Your task to perform on an android device: Show me popular videos on Youtube Image 0: 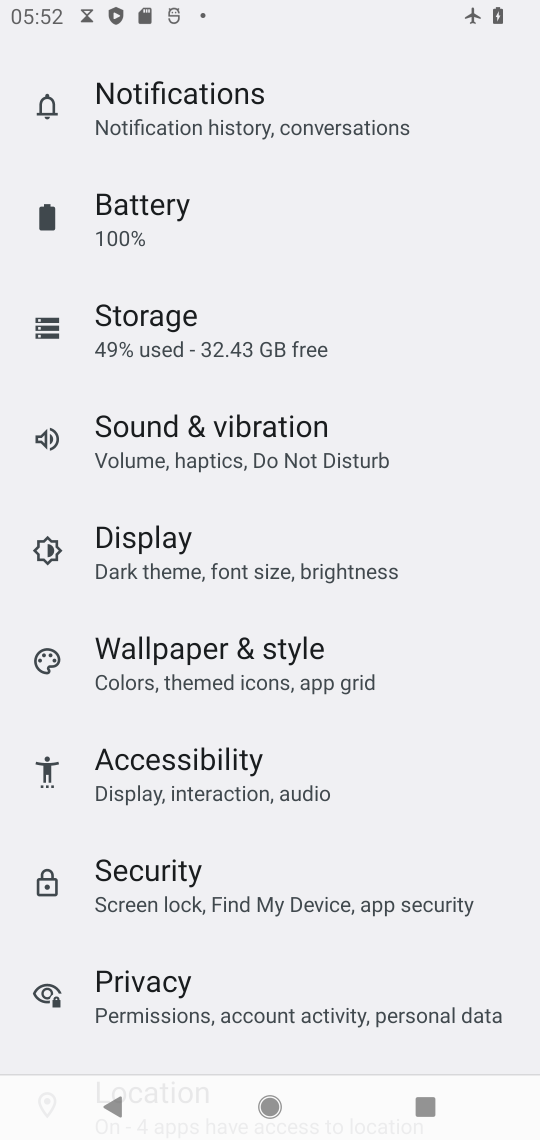
Step 0: press home button
Your task to perform on an android device: Show me popular videos on Youtube Image 1: 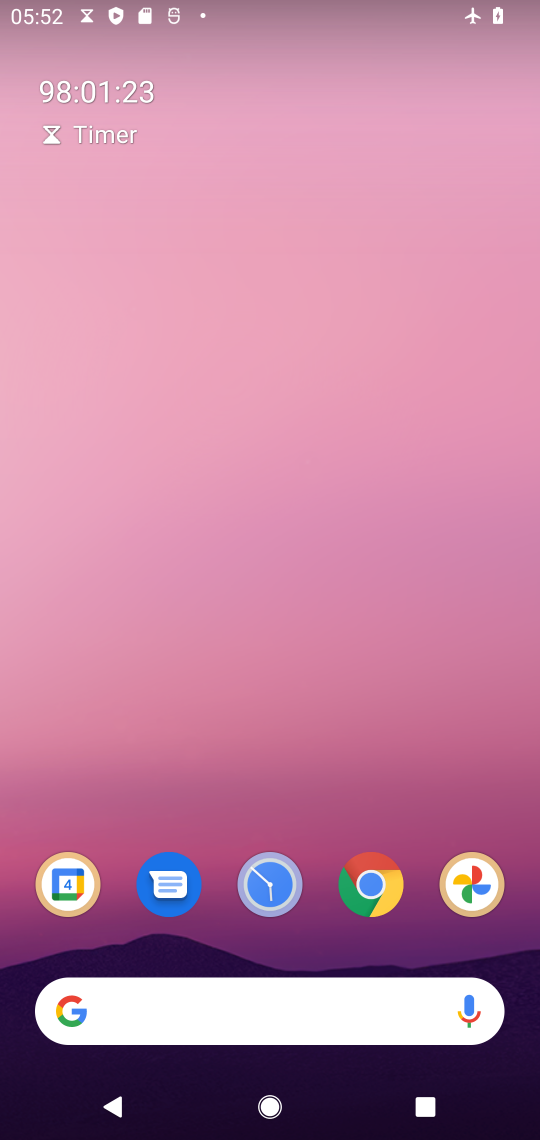
Step 1: drag from (331, 995) to (338, 132)
Your task to perform on an android device: Show me popular videos on Youtube Image 2: 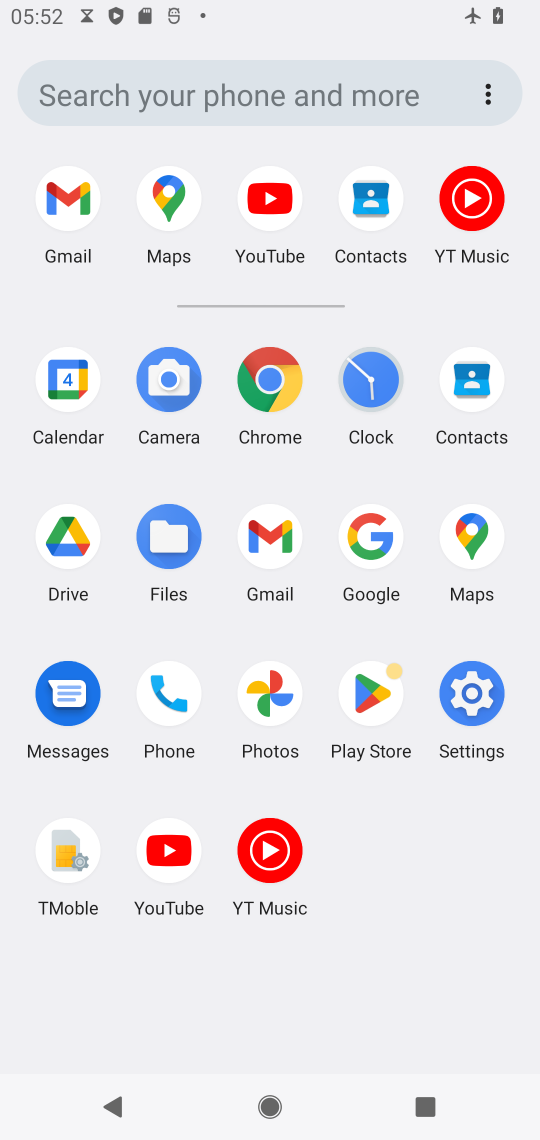
Step 2: click (168, 823)
Your task to perform on an android device: Show me popular videos on Youtube Image 3: 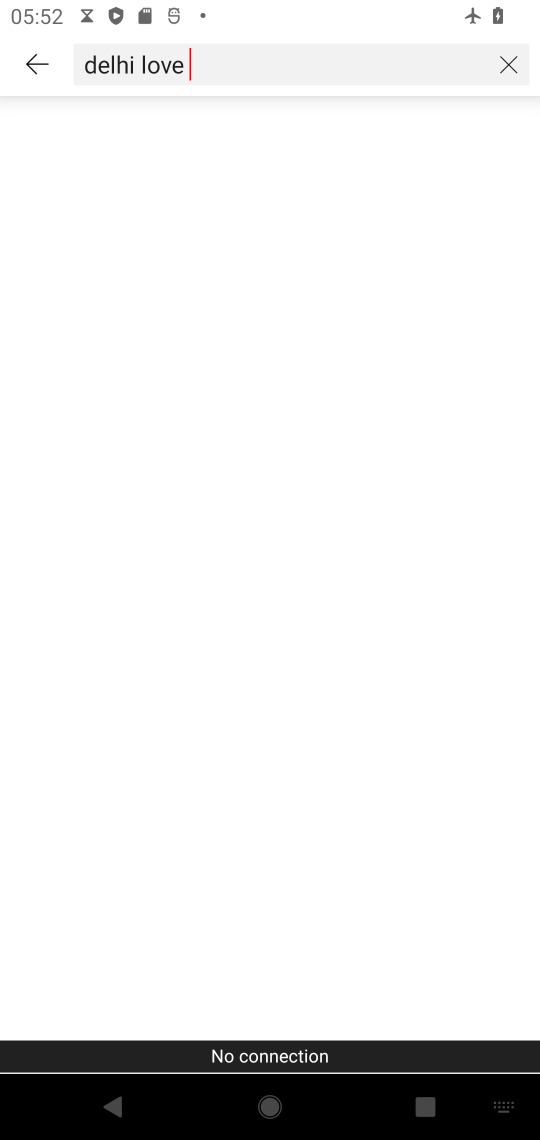
Step 3: click (460, 56)
Your task to perform on an android device: Show me popular videos on Youtube Image 4: 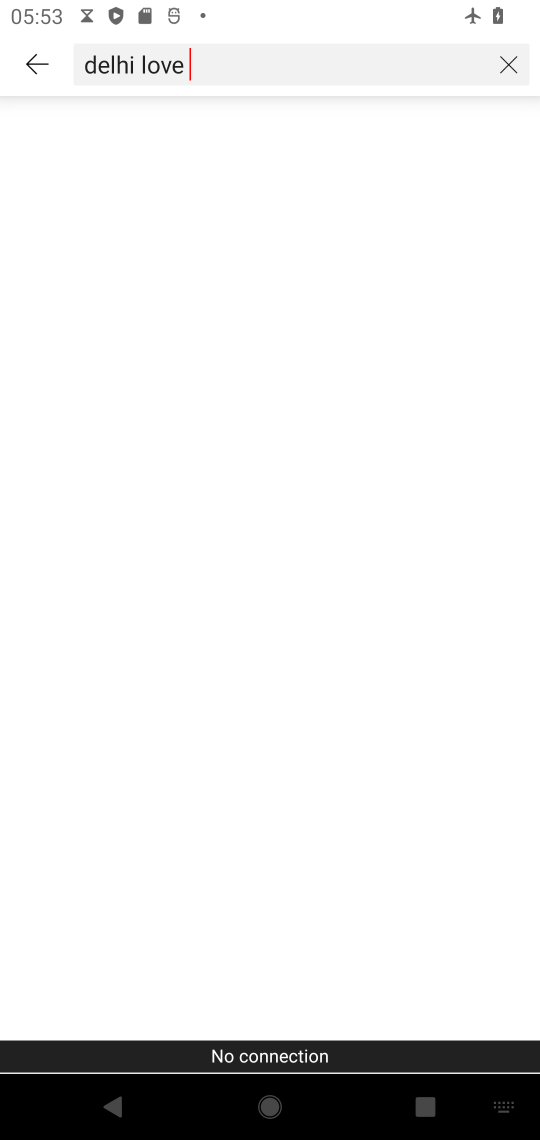
Step 4: task complete